Your task to perform on an android device: toggle data saver in the chrome app Image 0: 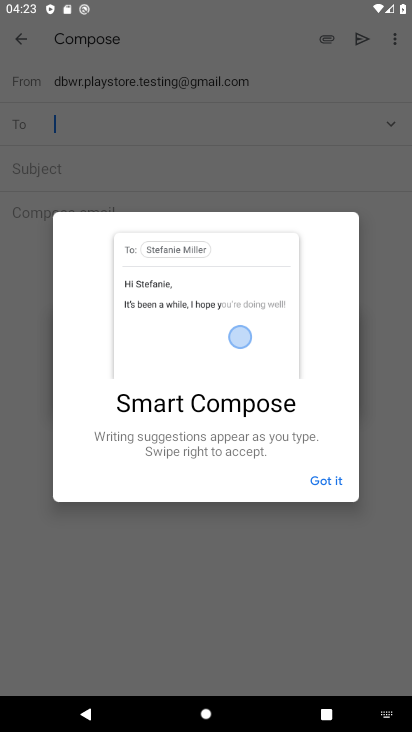
Step 0: press back button
Your task to perform on an android device: toggle data saver in the chrome app Image 1: 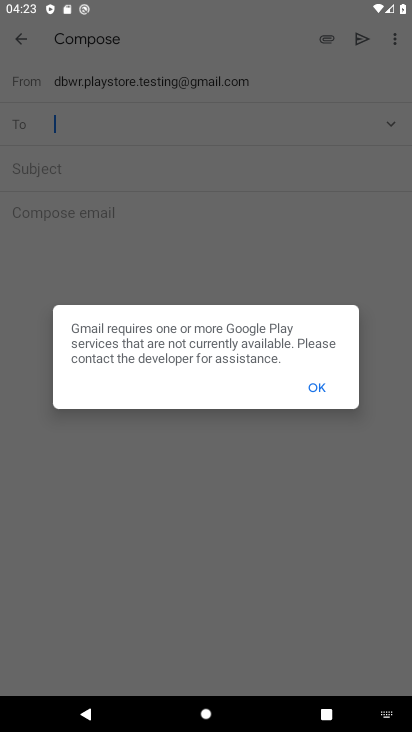
Step 1: press home button
Your task to perform on an android device: toggle data saver in the chrome app Image 2: 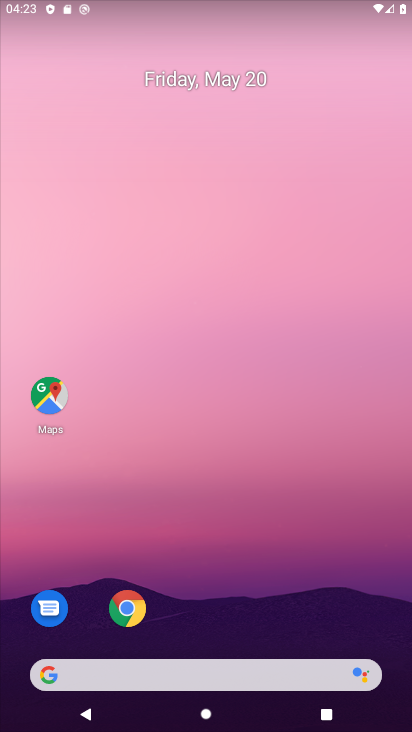
Step 2: click (129, 616)
Your task to perform on an android device: toggle data saver in the chrome app Image 3: 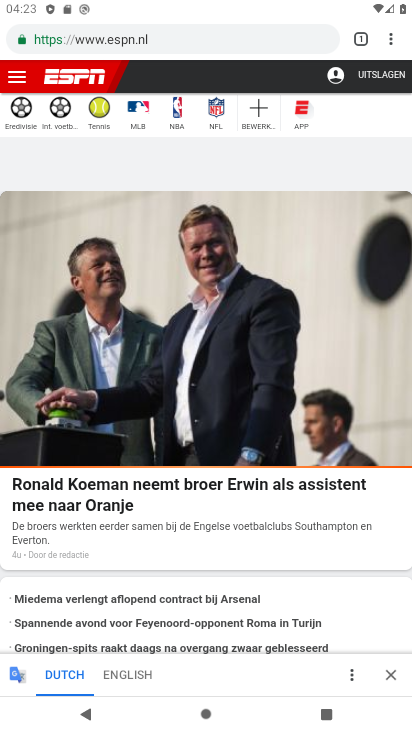
Step 3: drag from (393, 41) to (265, 478)
Your task to perform on an android device: toggle data saver in the chrome app Image 4: 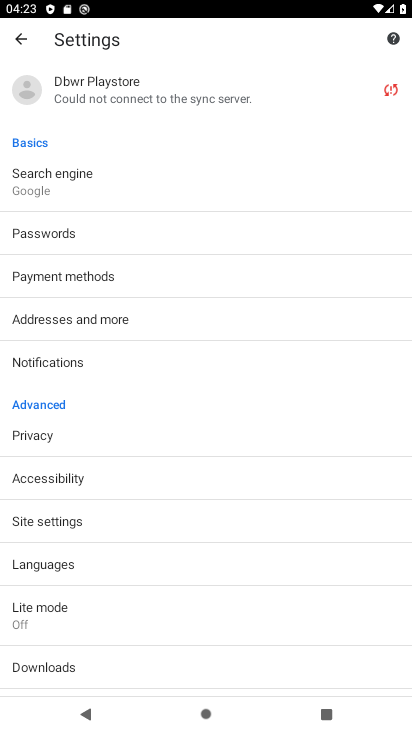
Step 4: click (59, 603)
Your task to perform on an android device: toggle data saver in the chrome app Image 5: 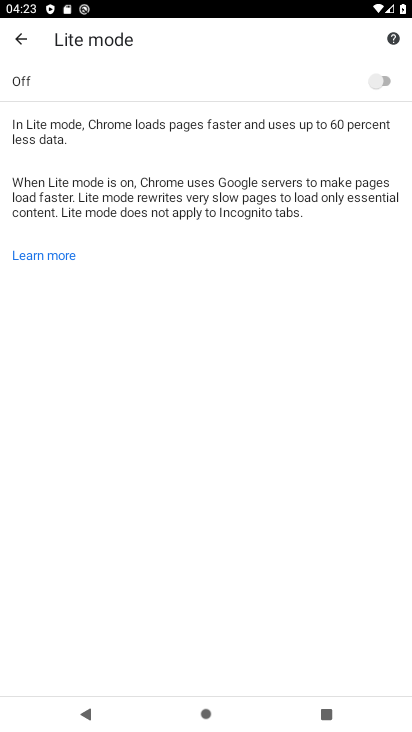
Step 5: click (384, 84)
Your task to perform on an android device: toggle data saver in the chrome app Image 6: 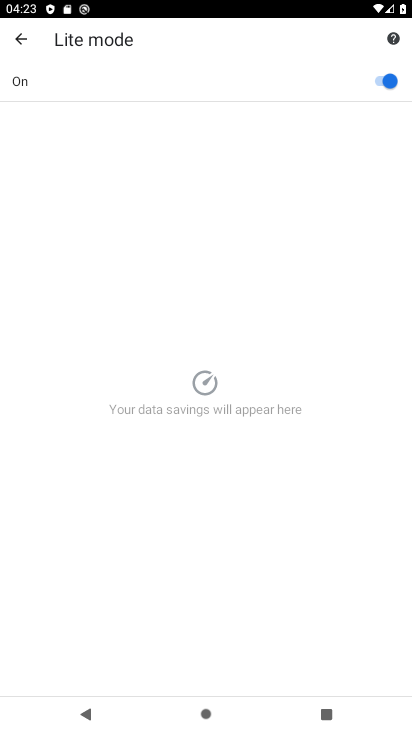
Step 6: task complete